Your task to perform on an android device: toggle airplane mode Image 0: 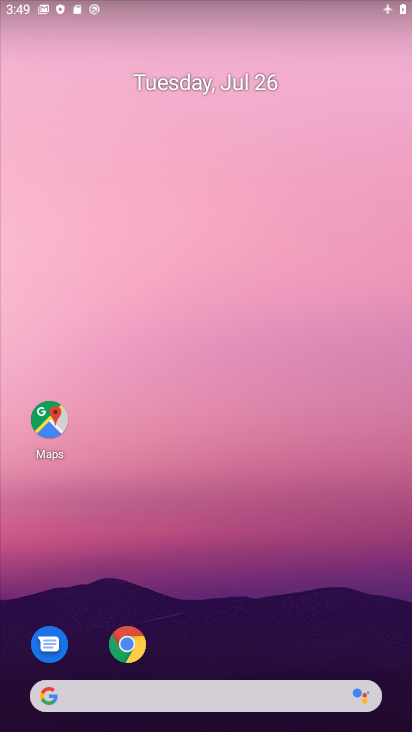
Step 0: drag from (388, 659) to (353, 57)
Your task to perform on an android device: toggle airplane mode Image 1: 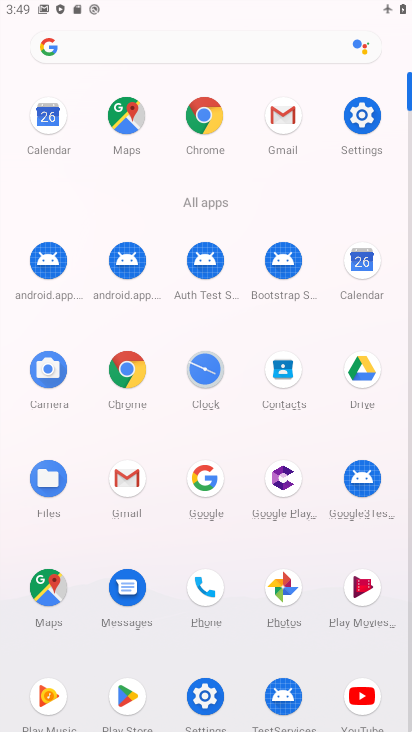
Step 1: click (206, 697)
Your task to perform on an android device: toggle airplane mode Image 2: 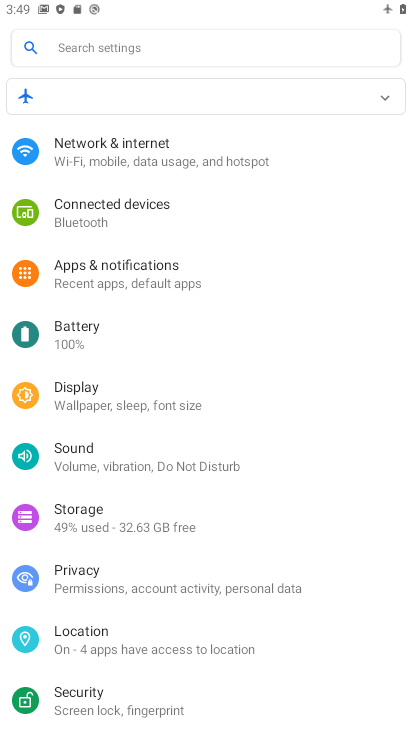
Step 2: click (99, 151)
Your task to perform on an android device: toggle airplane mode Image 3: 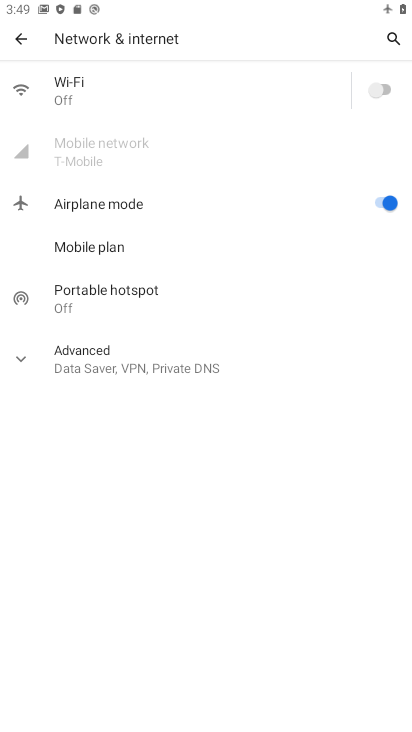
Step 3: click (379, 202)
Your task to perform on an android device: toggle airplane mode Image 4: 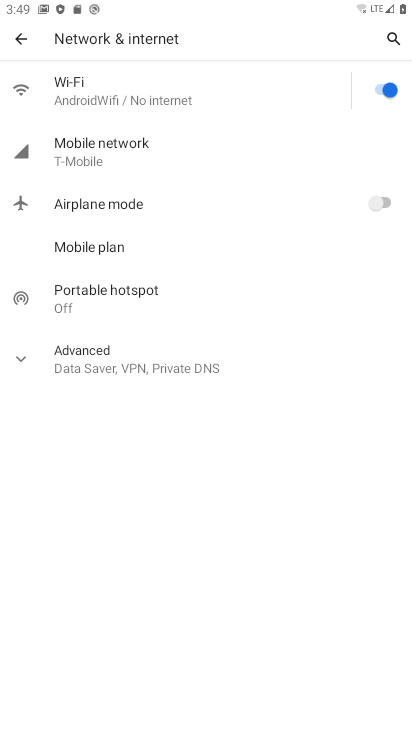
Step 4: task complete